Your task to perform on an android device: turn off translation in the chrome app Image 0: 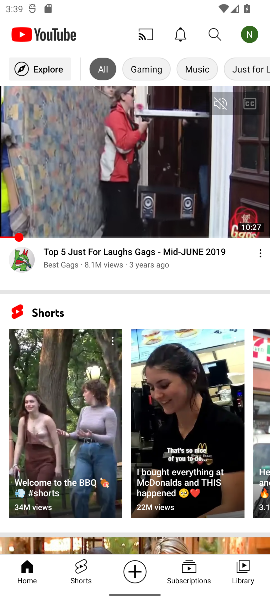
Step 0: press home button
Your task to perform on an android device: turn off translation in the chrome app Image 1: 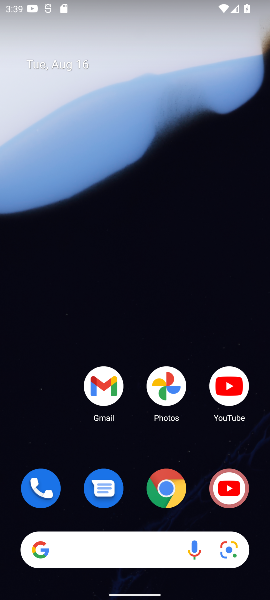
Step 1: click (161, 501)
Your task to perform on an android device: turn off translation in the chrome app Image 2: 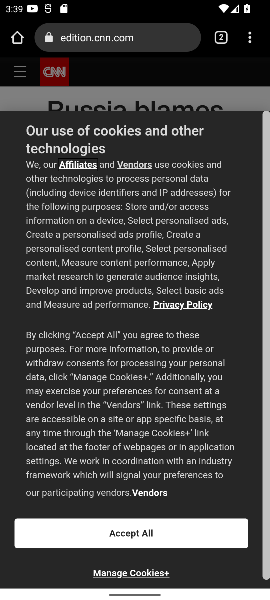
Step 2: task complete